Your task to perform on an android device: open chrome and create a bookmark for the current page Image 0: 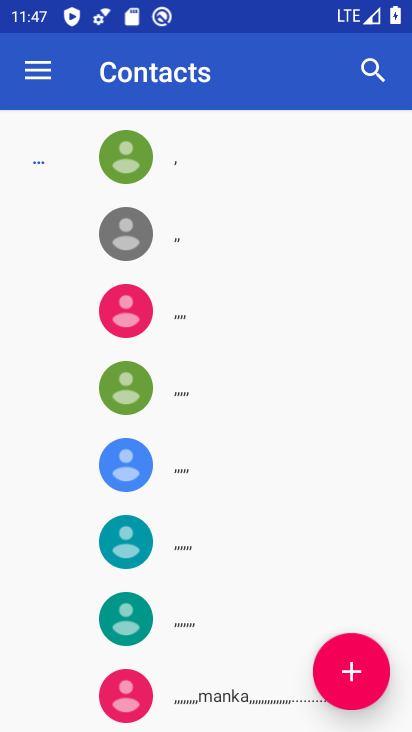
Step 0: press home button
Your task to perform on an android device: open chrome and create a bookmark for the current page Image 1: 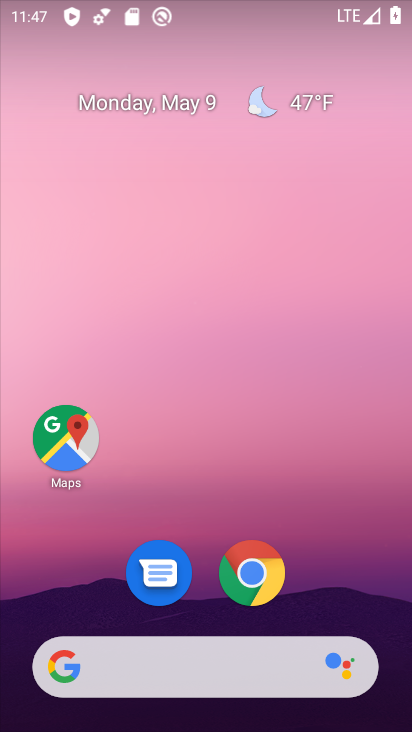
Step 1: drag from (198, 508) to (232, 212)
Your task to perform on an android device: open chrome and create a bookmark for the current page Image 2: 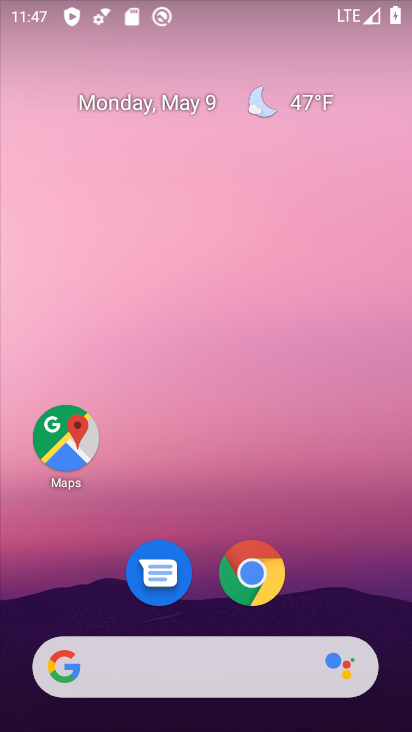
Step 2: click (249, 570)
Your task to perform on an android device: open chrome and create a bookmark for the current page Image 3: 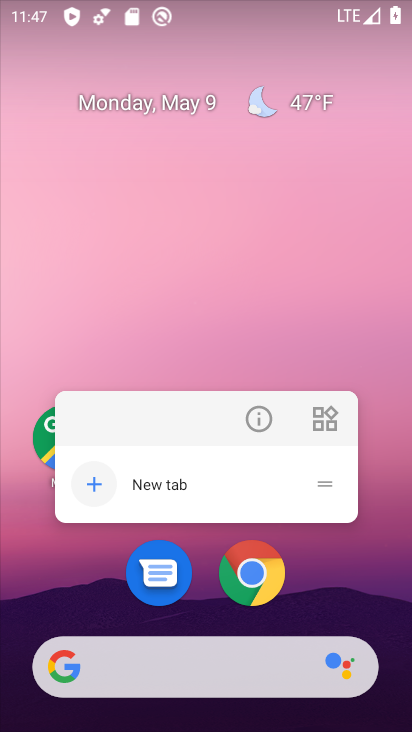
Step 3: click (268, 427)
Your task to perform on an android device: open chrome and create a bookmark for the current page Image 4: 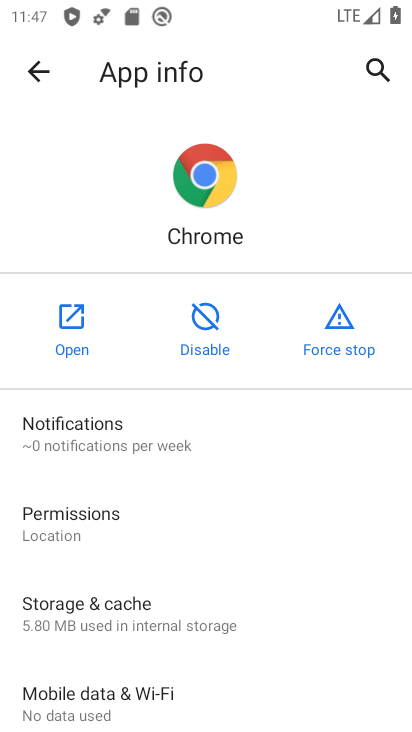
Step 4: click (56, 286)
Your task to perform on an android device: open chrome and create a bookmark for the current page Image 5: 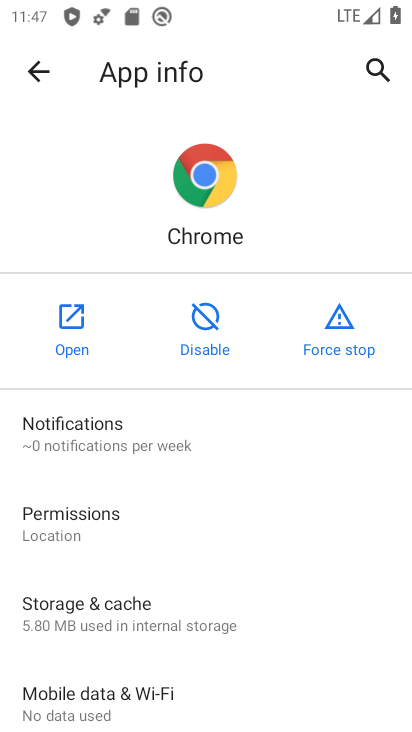
Step 5: click (58, 287)
Your task to perform on an android device: open chrome and create a bookmark for the current page Image 6: 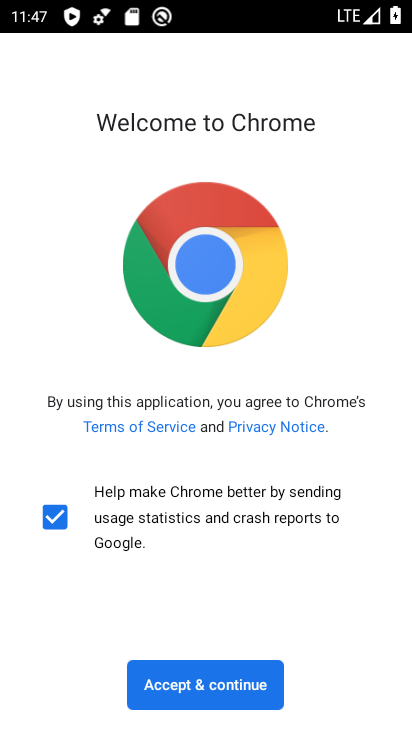
Step 6: click (185, 680)
Your task to perform on an android device: open chrome and create a bookmark for the current page Image 7: 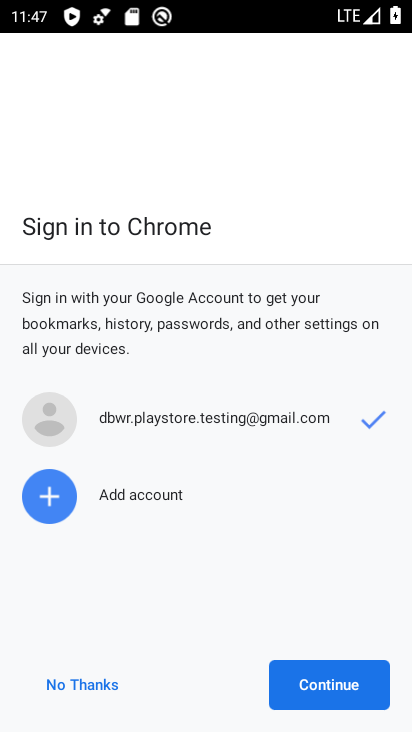
Step 7: click (311, 686)
Your task to perform on an android device: open chrome and create a bookmark for the current page Image 8: 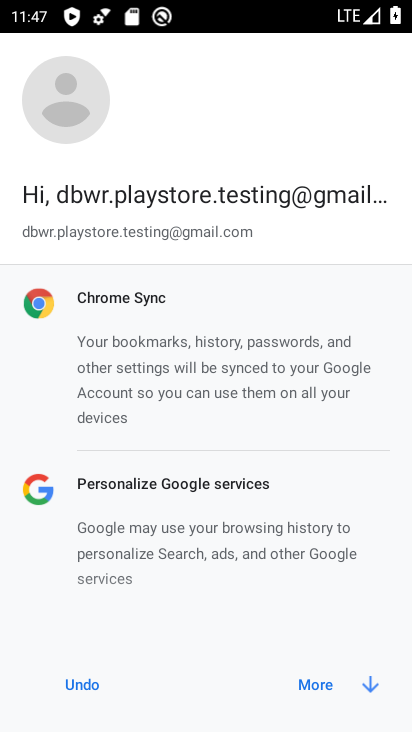
Step 8: click (325, 700)
Your task to perform on an android device: open chrome and create a bookmark for the current page Image 9: 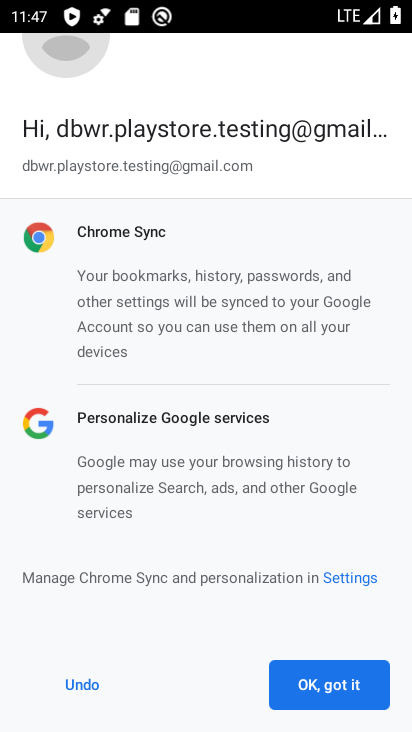
Step 9: click (321, 692)
Your task to perform on an android device: open chrome and create a bookmark for the current page Image 10: 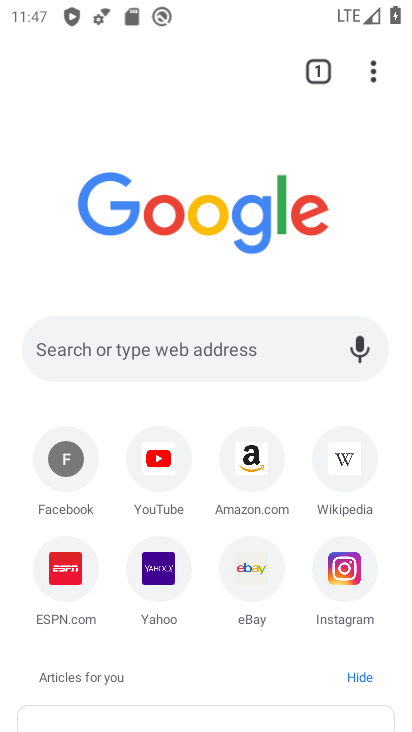
Step 10: drag from (209, 667) to (232, 194)
Your task to perform on an android device: open chrome and create a bookmark for the current page Image 11: 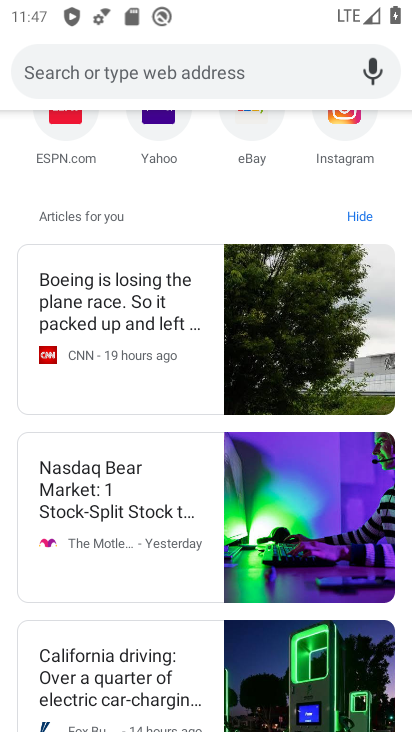
Step 11: drag from (212, 202) to (190, 646)
Your task to perform on an android device: open chrome and create a bookmark for the current page Image 12: 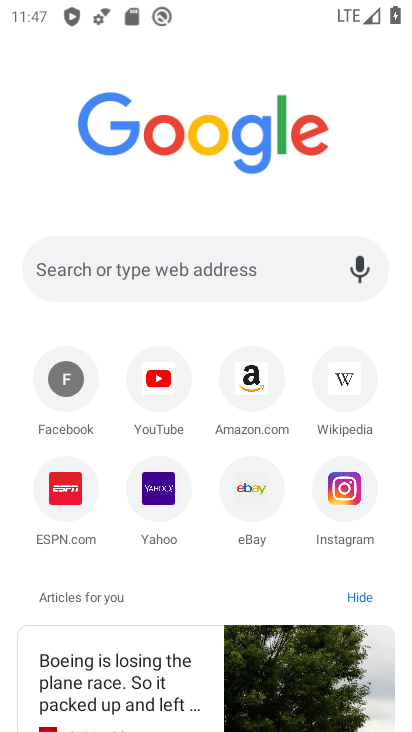
Step 12: drag from (305, 195) to (320, 347)
Your task to perform on an android device: open chrome and create a bookmark for the current page Image 13: 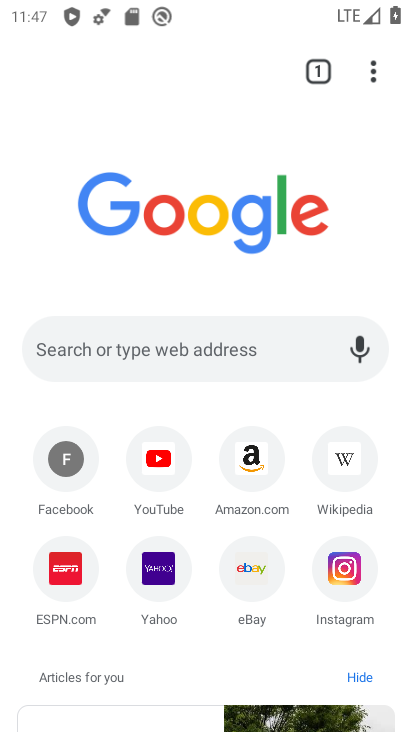
Step 13: click (362, 74)
Your task to perform on an android device: open chrome and create a bookmark for the current page Image 14: 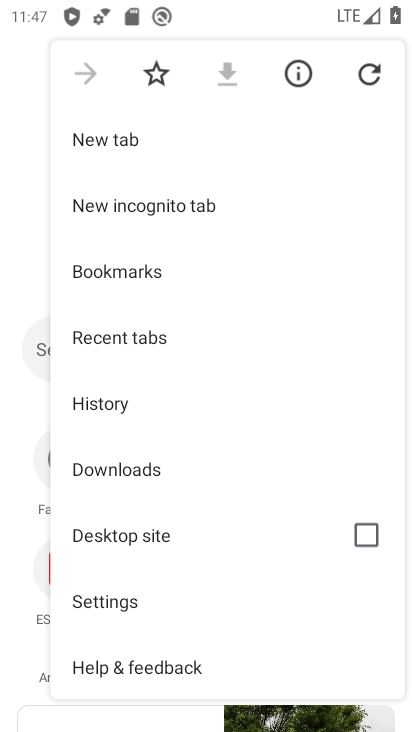
Step 14: click (159, 75)
Your task to perform on an android device: open chrome and create a bookmark for the current page Image 15: 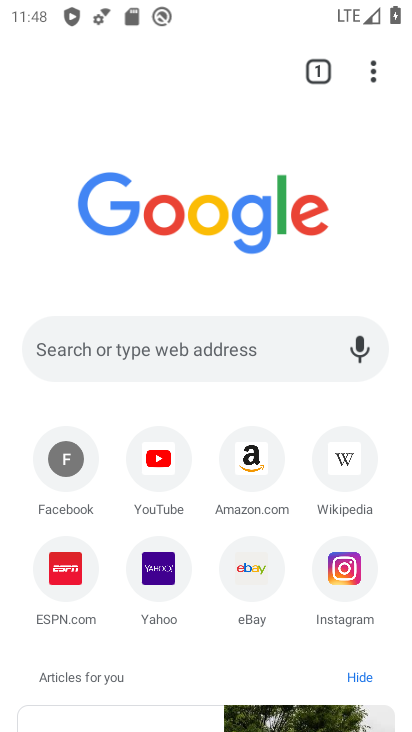
Step 15: task complete